Your task to perform on an android device: Find coffee shops on Maps Image 0: 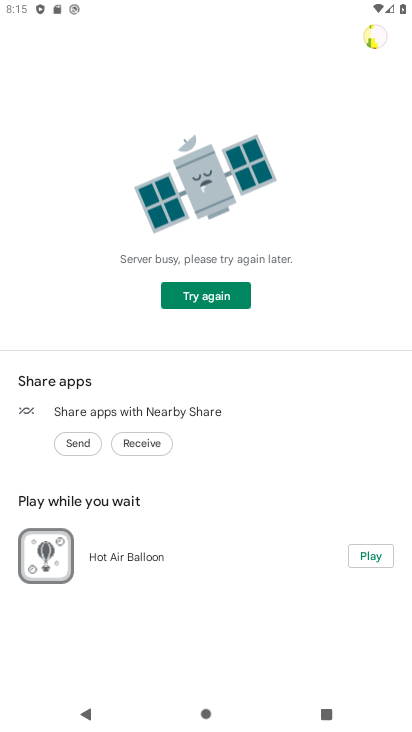
Step 0: press back button
Your task to perform on an android device: Find coffee shops on Maps Image 1: 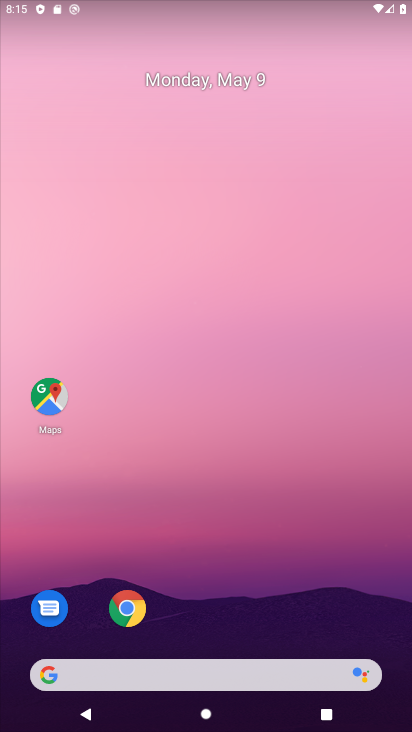
Step 1: click (47, 362)
Your task to perform on an android device: Find coffee shops on Maps Image 2: 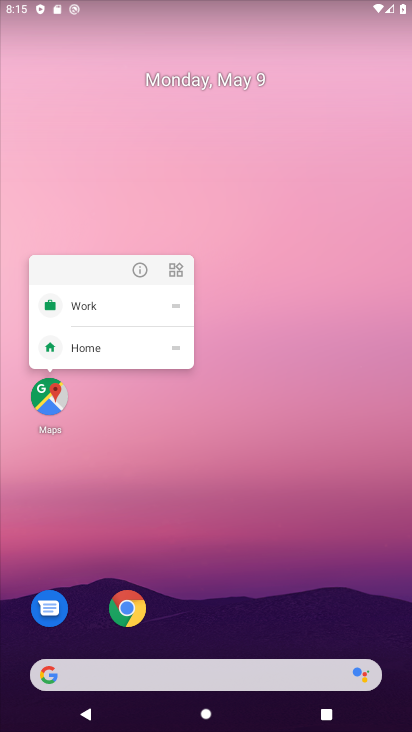
Step 2: click (47, 388)
Your task to perform on an android device: Find coffee shops on Maps Image 3: 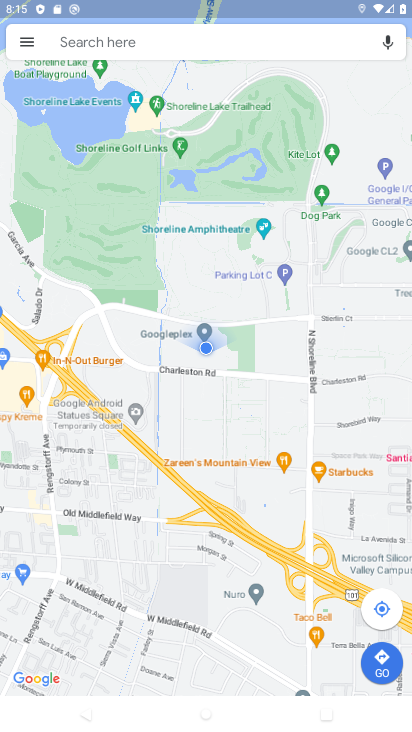
Step 3: click (94, 40)
Your task to perform on an android device: Find coffee shops on Maps Image 4: 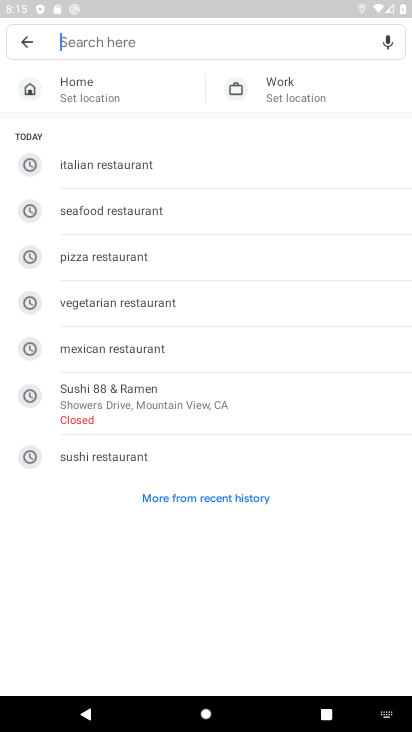
Step 4: type "coffee shops"
Your task to perform on an android device: Find coffee shops on Maps Image 5: 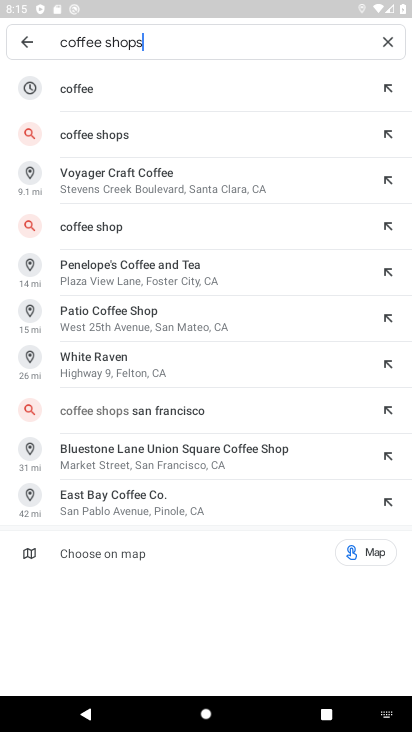
Step 5: click (164, 139)
Your task to perform on an android device: Find coffee shops on Maps Image 6: 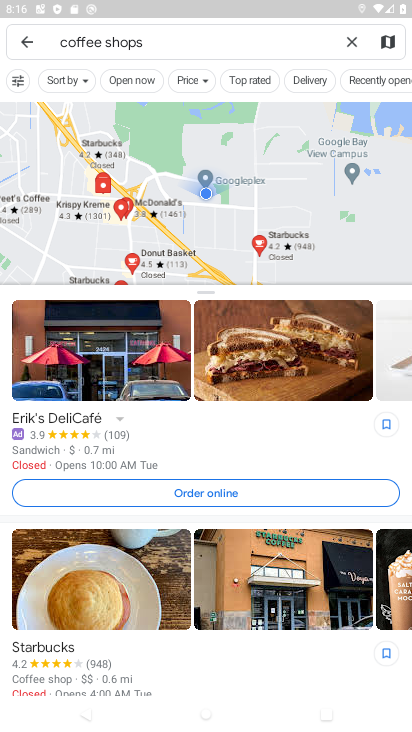
Step 6: task complete